Your task to perform on an android device: Open Reddit.com Image 0: 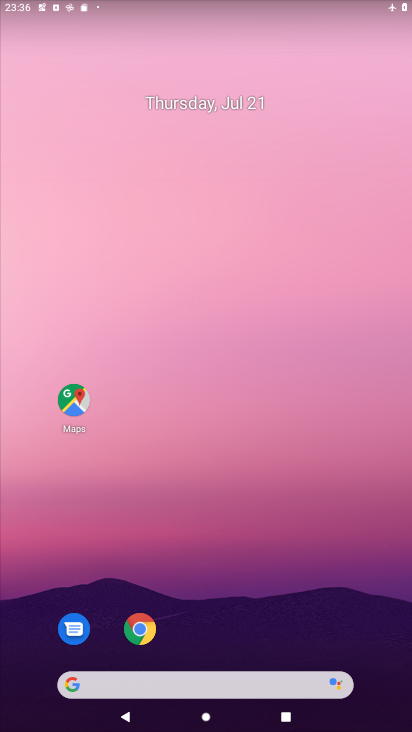
Step 0: drag from (230, 611) to (299, 120)
Your task to perform on an android device: Open Reddit.com Image 1: 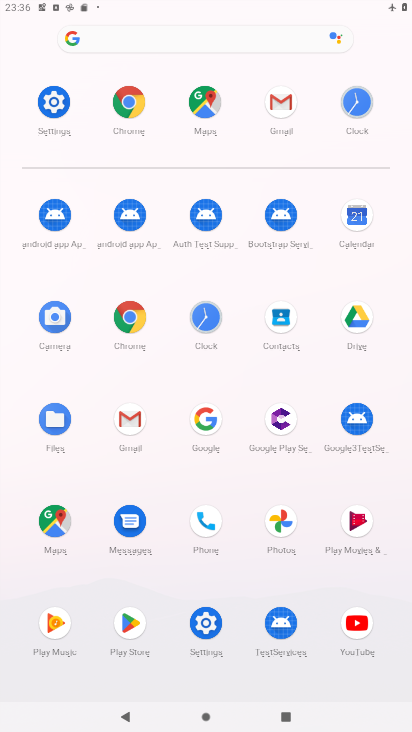
Step 1: click (137, 327)
Your task to perform on an android device: Open Reddit.com Image 2: 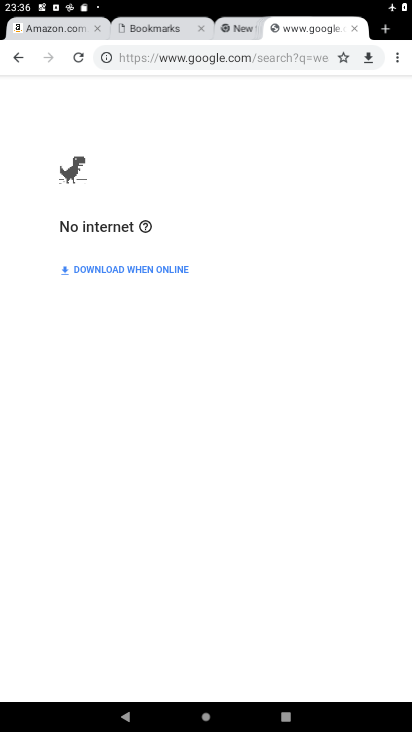
Step 2: task complete